Your task to perform on an android device: open app "Google Play services" (install if not already installed) Image 0: 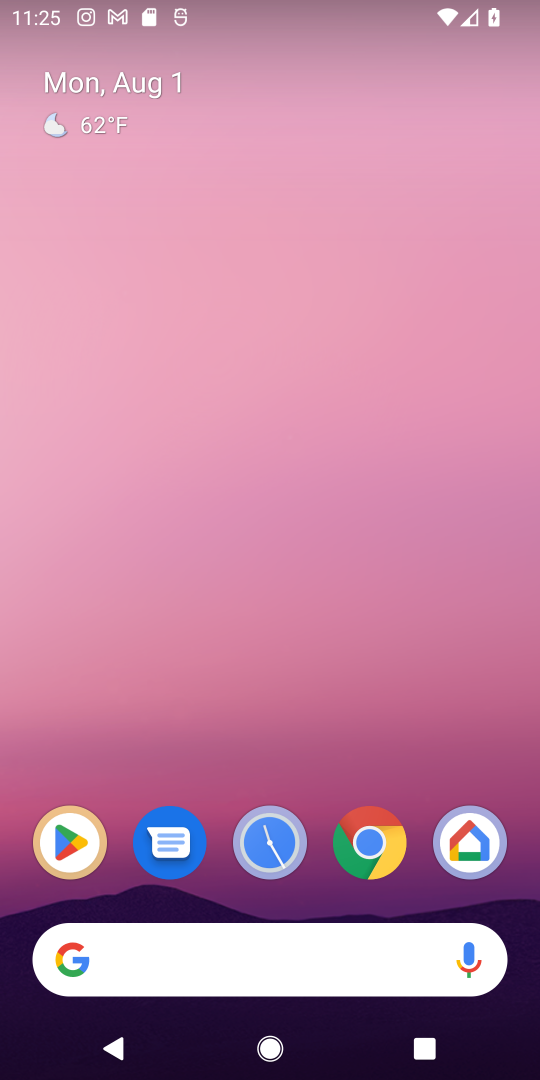
Step 0: click (58, 842)
Your task to perform on an android device: open app "Google Play services" (install if not already installed) Image 1: 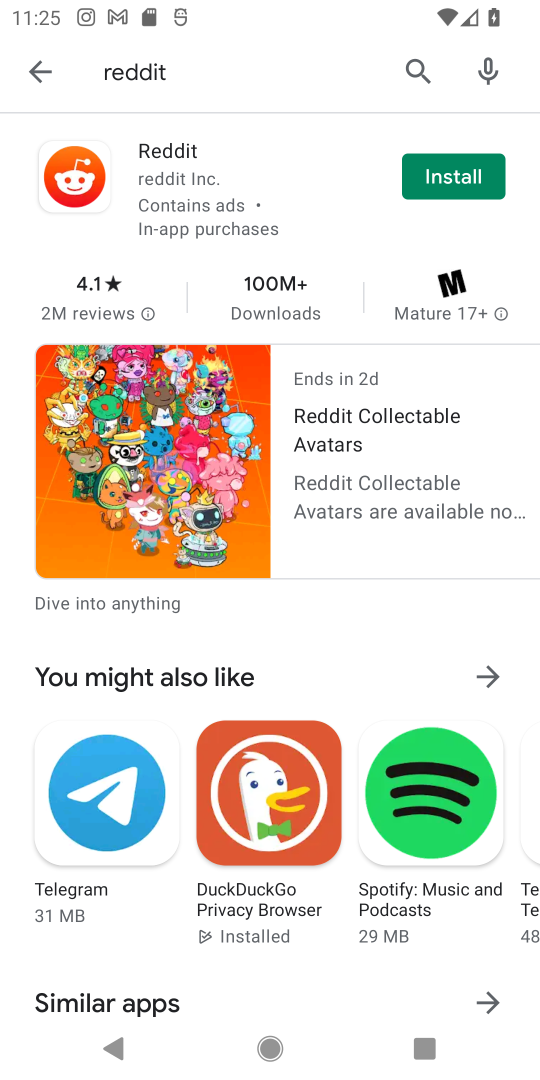
Step 1: click (33, 61)
Your task to perform on an android device: open app "Google Play services" (install if not already installed) Image 2: 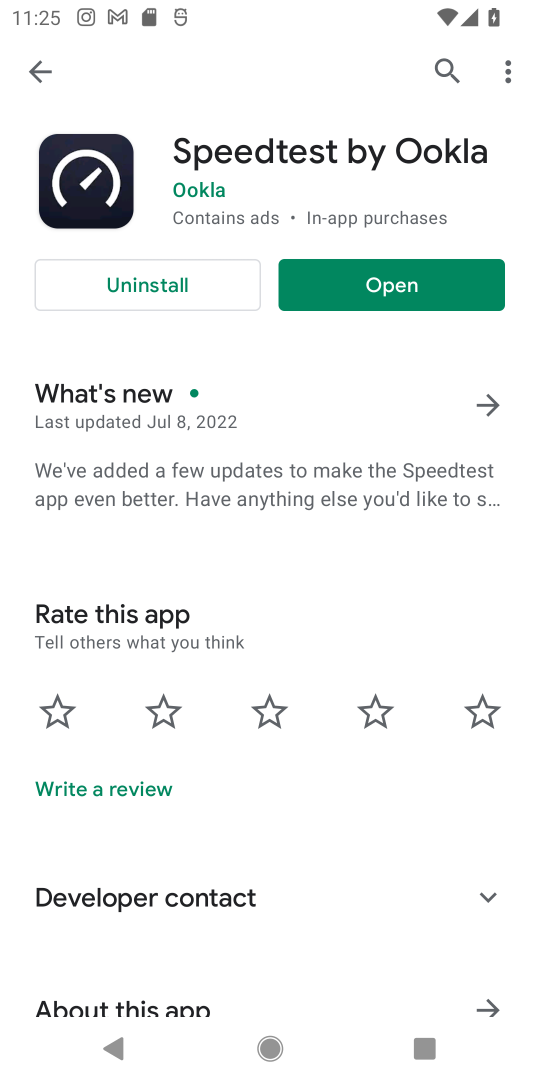
Step 2: click (436, 84)
Your task to perform on an android device: open app "Google Play services" (install if not already installed) Image 3: 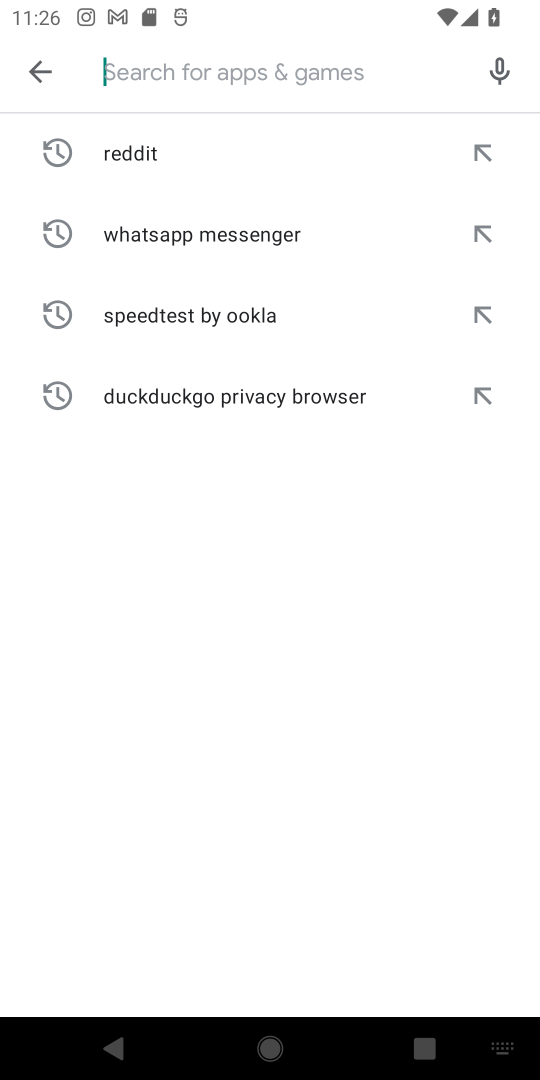
Step 3: click (188, 62)
Your task to perform on an android device: open app "Google Play services" (install if not already installed) Image 4: 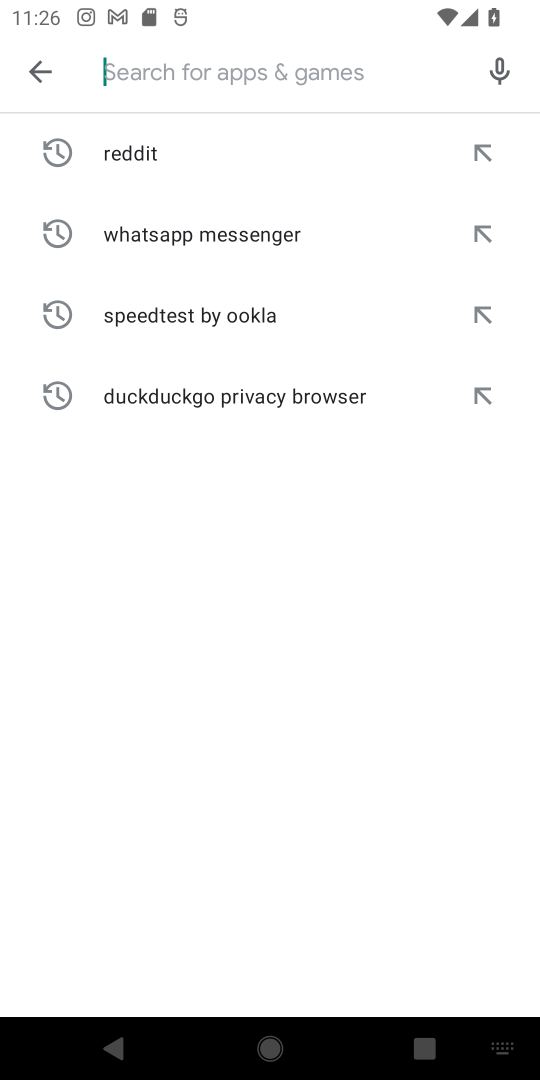
Step 4: type "Google Play services"
Your task to perform on an android device: open app "Google Play services" (install if not already installed) Image 5: 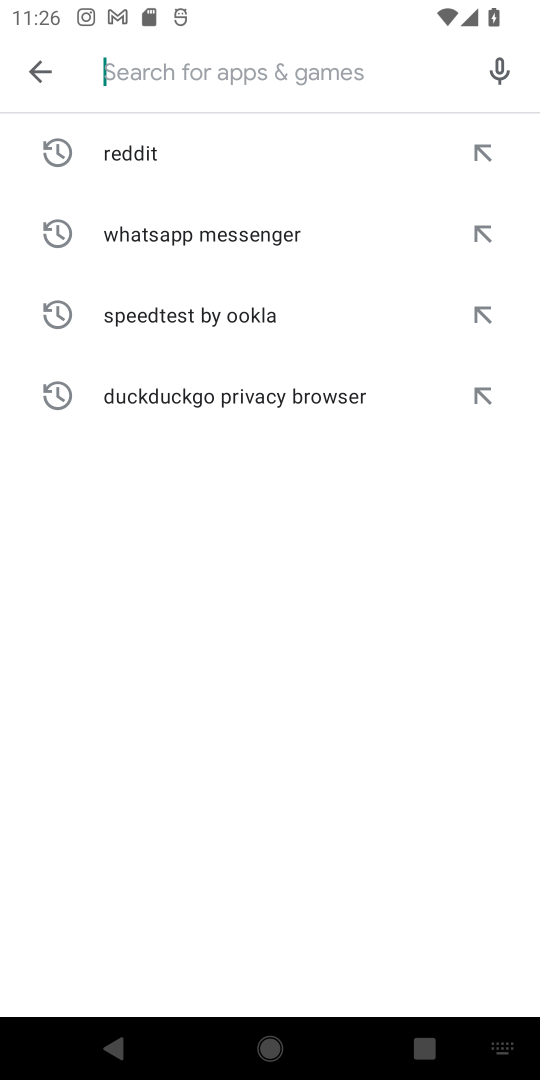
Step 5: click (162, 702)
Your task to perform on an android device: open app "Google Play services" (install if not already installed) Image 6: 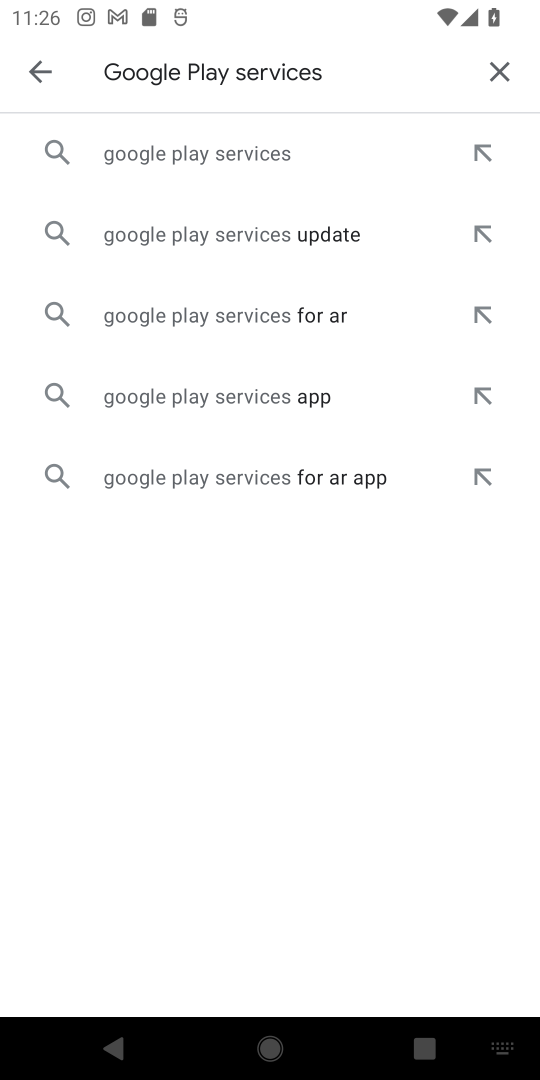
Step 6: click (210, 152)
Your task to perform on an android device: open app "Google Play services" (install if not already installed) Image 7: 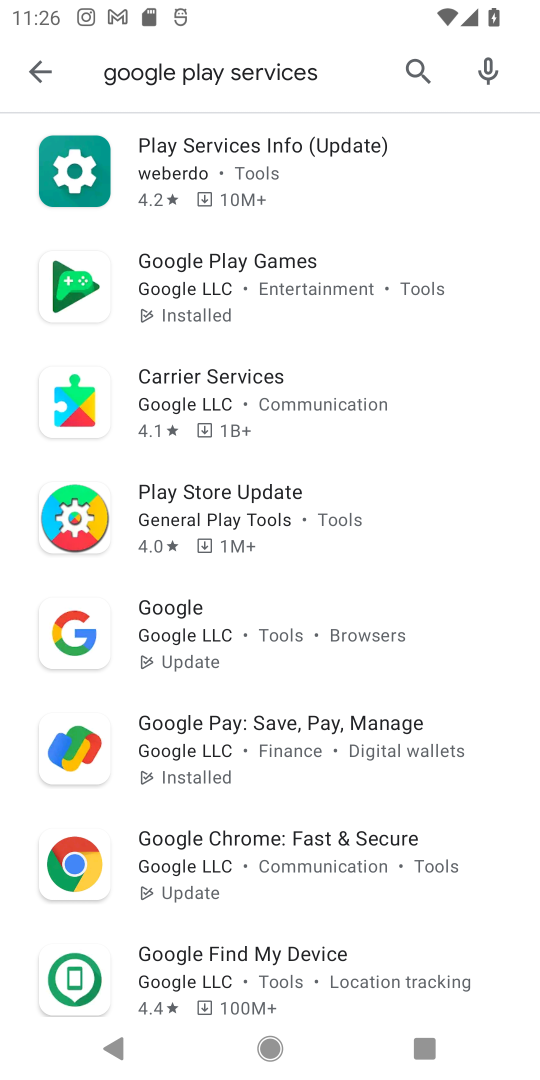
Step 7: task complete